Your task to perform on an android device: check out phone information Image 0: 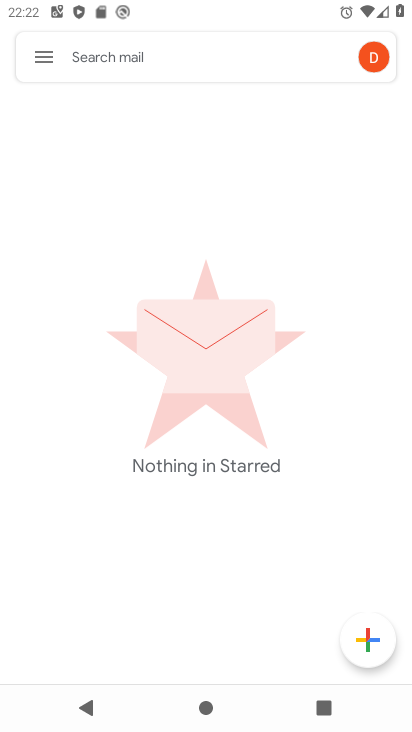
Step 0: press home button
Your task to perform on an android device: check out phone information Image 1: 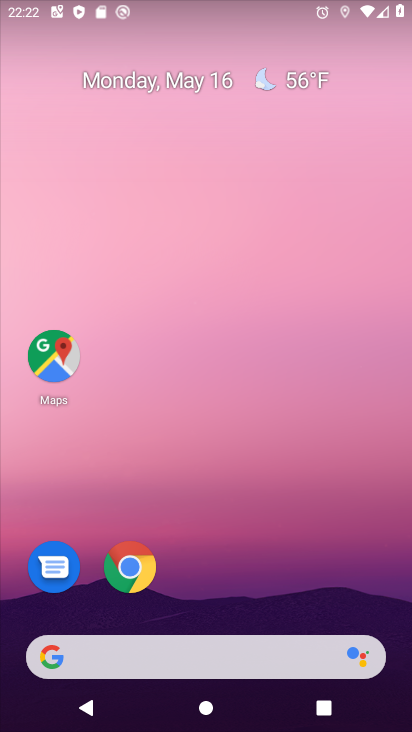
Step 1: drag from (248, 566) to (298, 146)
Your task to perform on an android device: check out phone information Image 2: 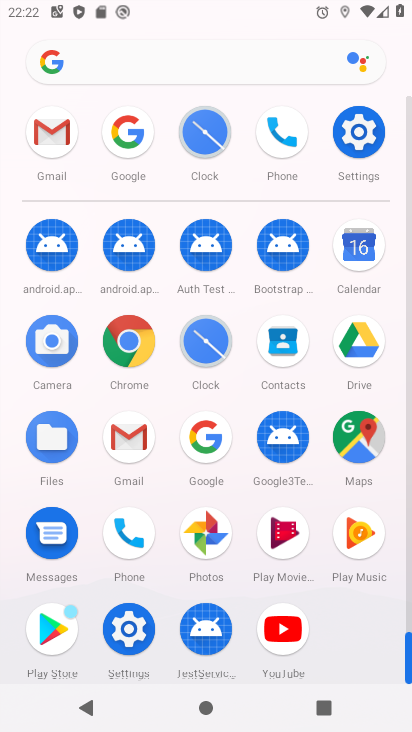
Step 2: click (356, 130)
Your task to perform on an android device: check out phone information Image 3: 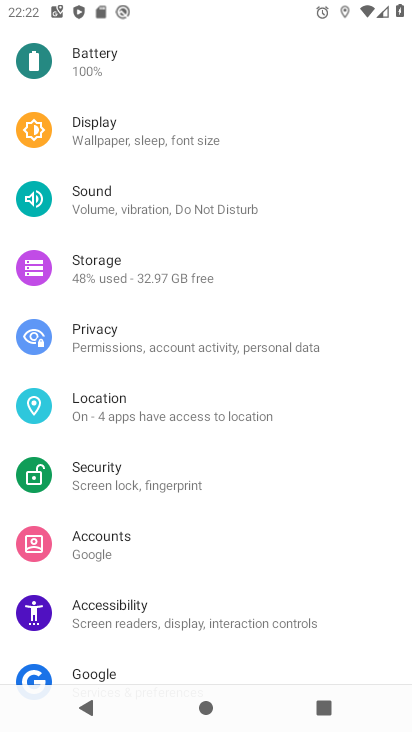
Step 3: drag from (157, 644) to (211, 239)
Your task to perform on an android device: check out phone information Image 4: 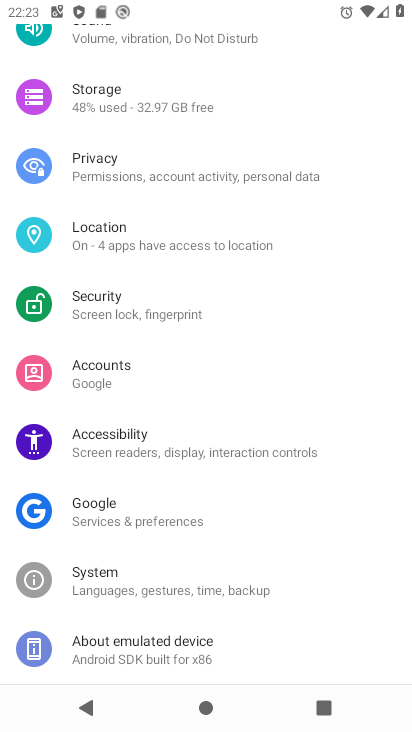
Step 4: click (121, 634)
Your task to perform on an android device: check out phone information Image 5: 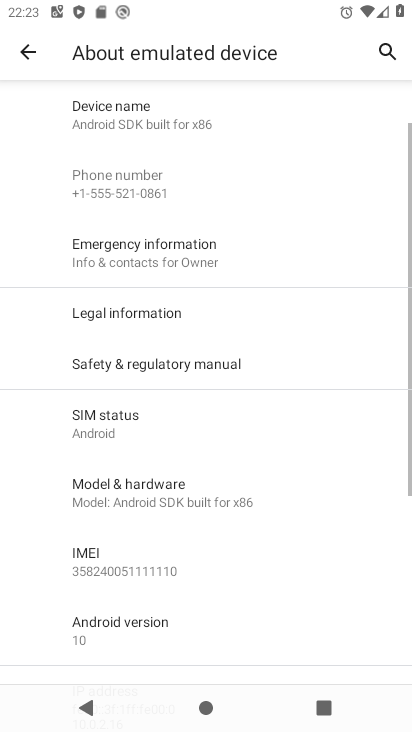
Step 5: task complete